Your task to perform on an android device: turn on sleep mode Image 0: 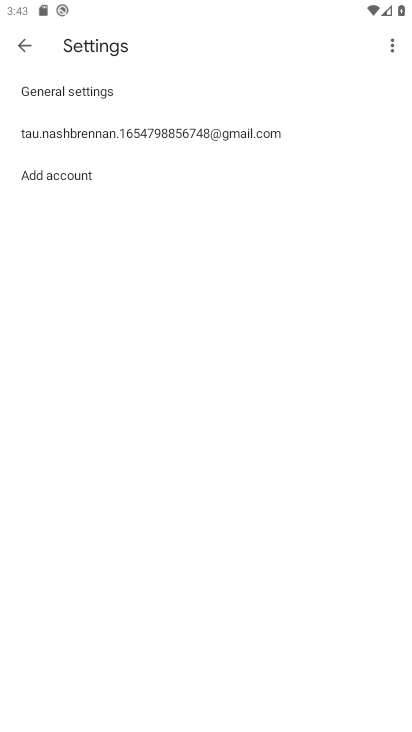
Step 0: drag from (139, 6) to (167, 584)
Your task to perform on an android device: turn on sleep mode Image 1: 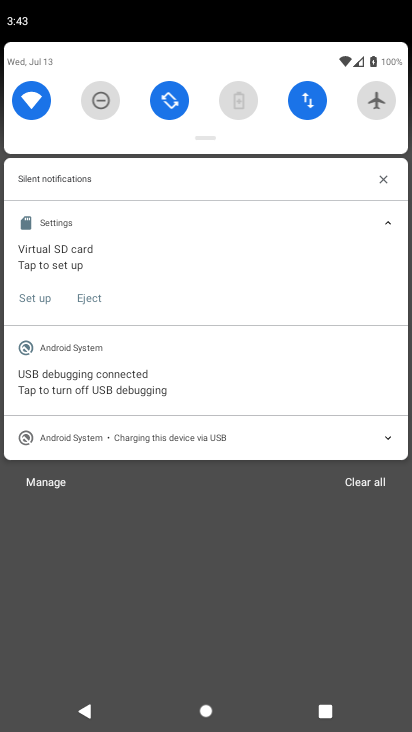
Step 1: drag from (200, 80) to (294, 586)
Your task to perform on an android device: turn on sleep mode Image 2: 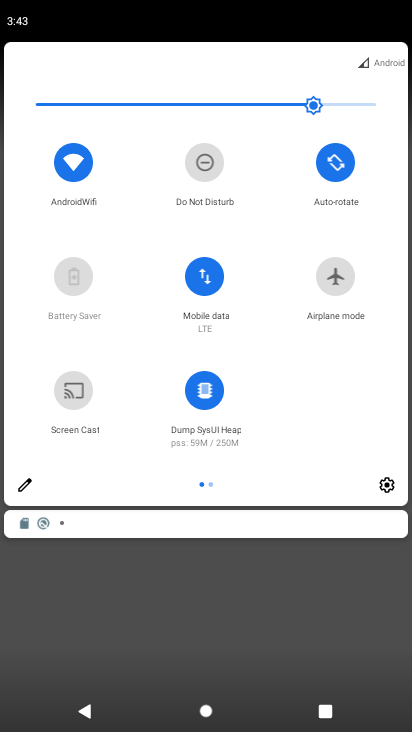
Step 2: click (389, 481)
Your task to perform on an android device: turn on sleep mode Image 3: 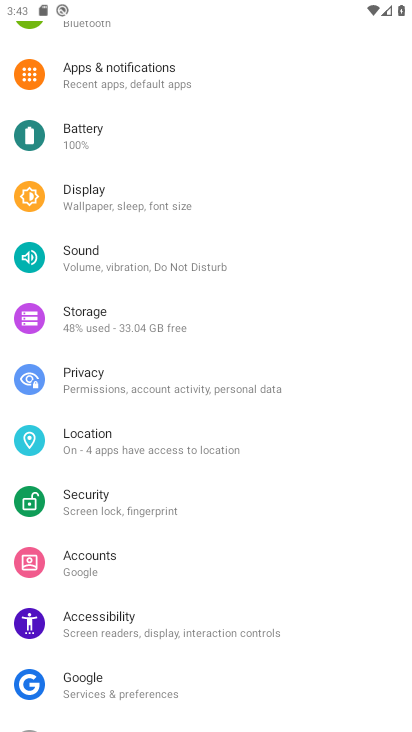
Step 3: task complete